Your task to perform on an android device: change your default location settings in chrome Image 0: 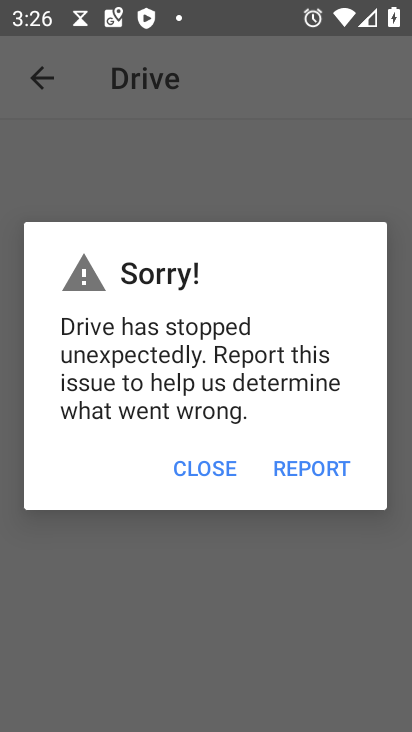
Step 0: click (213, 463)
Your task to perform on an android device: change your default location settings in chrome Image 1: 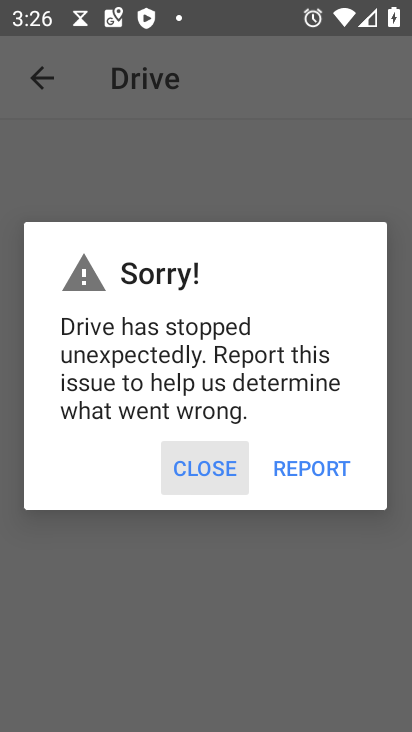
Step 1: click (213, 463)
Your task to perform on an android device: change your default location settings in chrome Image 2: 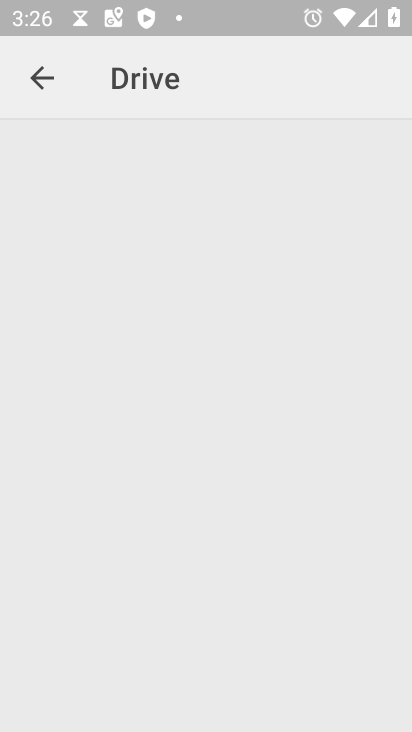
Step 2: click (213, 463)
Your task to perform on an android device: change your default location settings in chrome Image 3: 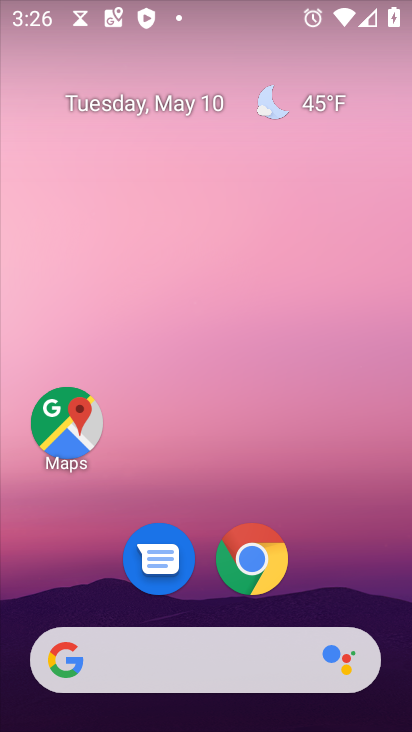
Step 3: drag from (356, 555) to (225, 5)
Your task to perform on an android device: change your default location settings in chrome Image 4: 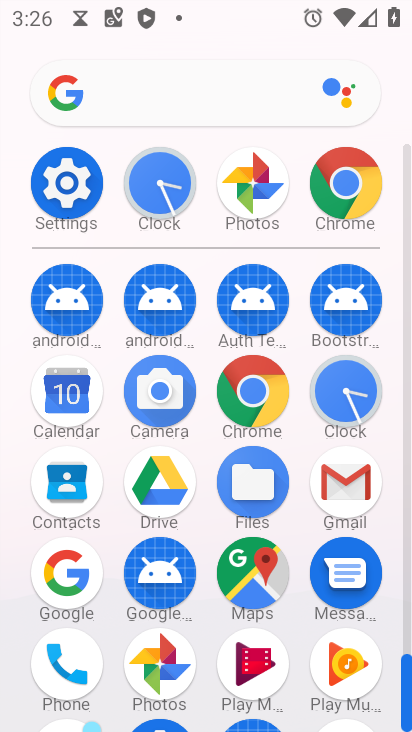
Step 4: click (340, 191)
Your task to perform on an android device: change your default location settings in chrome Image 5: 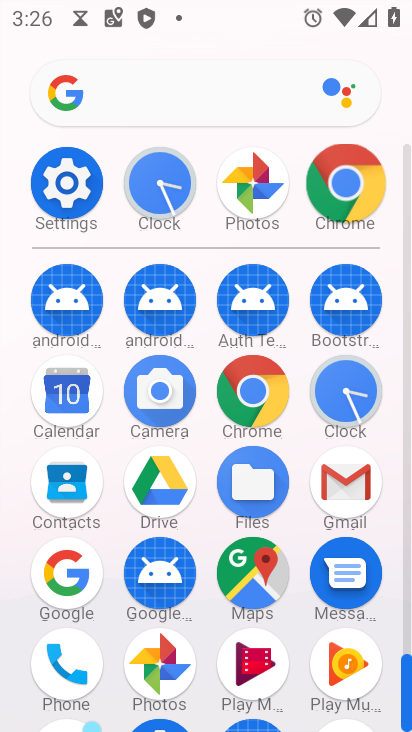
Step 5: click (352, 189)
Your task to perform on an android device: change your default location settings in chrome Image 6: 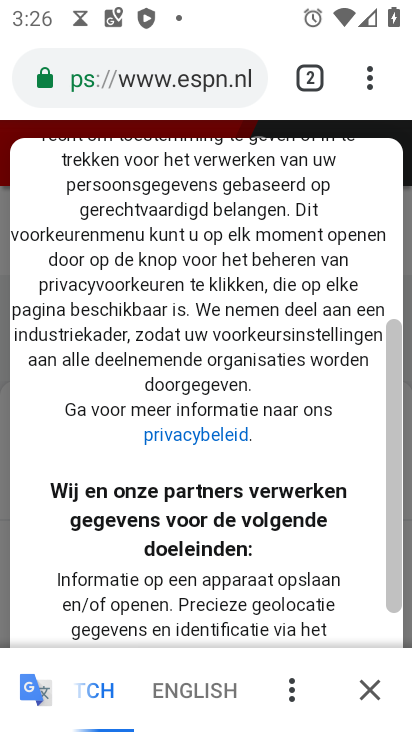
Step 6: drag from (361, 84) to (139, 622)
Your task to perform on an android device: change your default location settings in chrome Image 7: 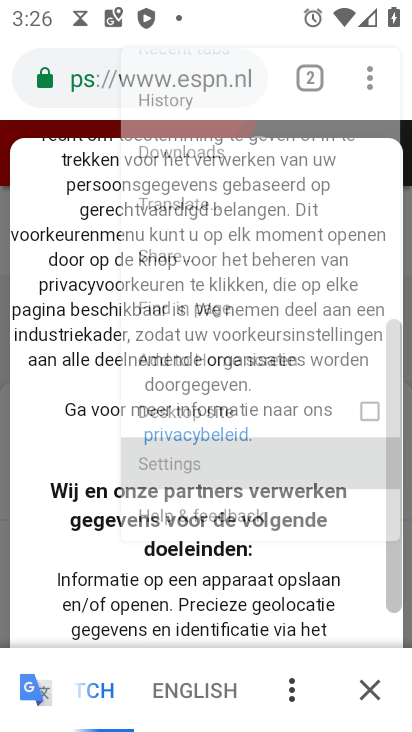
Step 7: click (139, 622)
Your task to perform on an android device: change your default location settings in chrome Image 8: 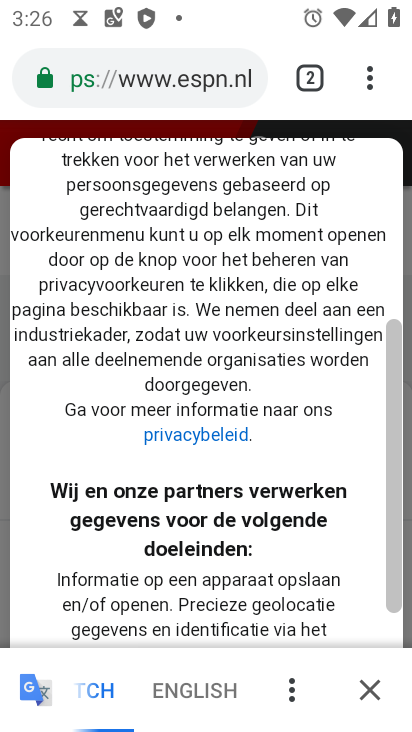
Step 8: click (139, 622)
Your task to perform on an android device: change your default location settings in chrome Image 9: 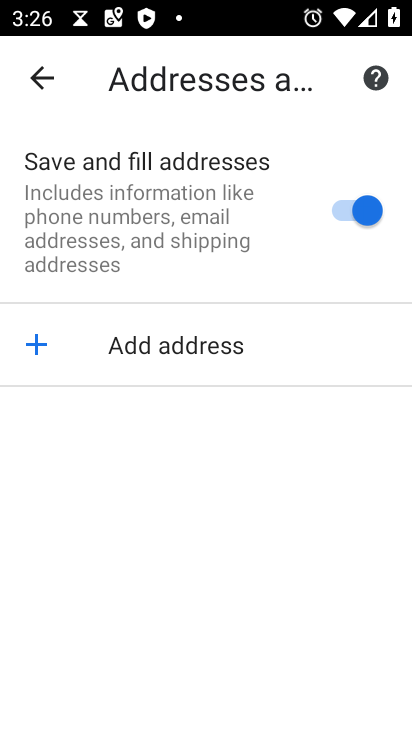
Step 9: click (42, 69)
Your task to perform on an android device: change your default location settings in chrome Image 10: 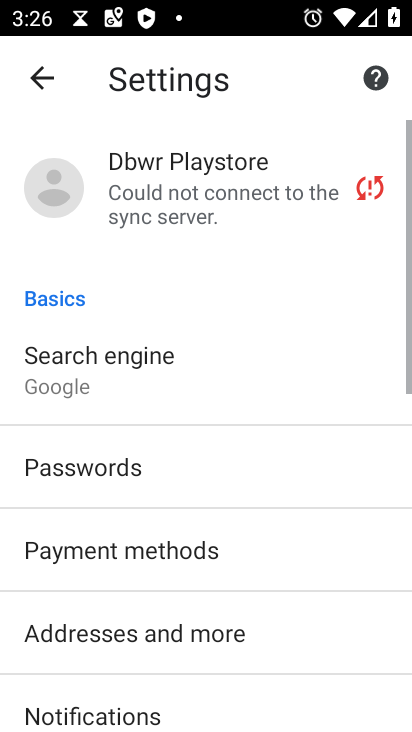
Step 10: task complete